Your task to perform on an android device: turn off airplane mode Image 0: 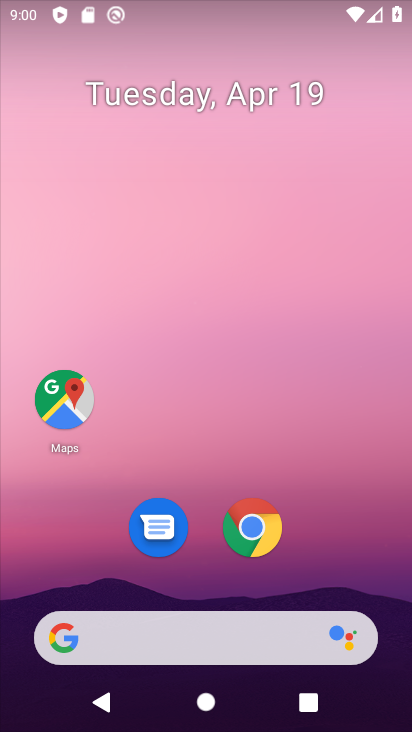
Step 0: drag from (251, 677) to (245, 154)
Your task to perform on an android device: turn off airplane mode Image 1: 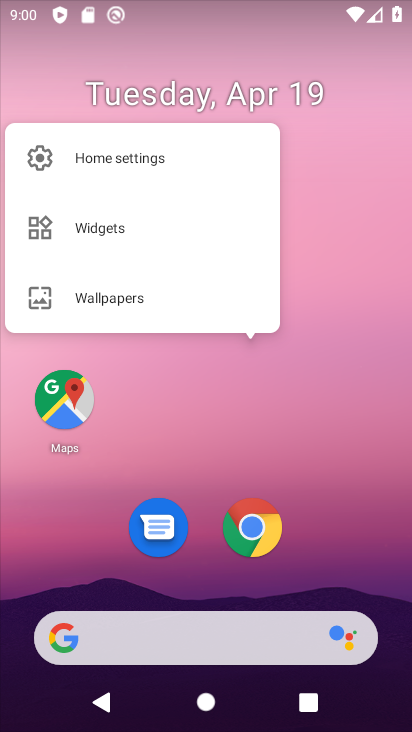
Step 1: click (310, 419)
Your task to perform on an android device: turn off airplane mode Image 2: 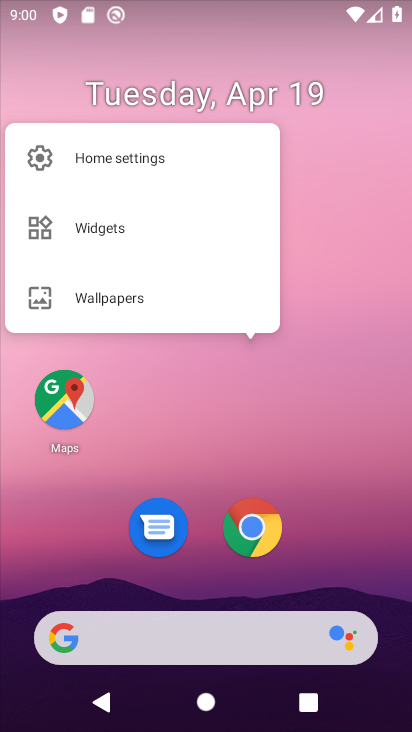
Step 2: click (310, 419)
Your task to perform on an android device: turn off airplane mode Image 3: 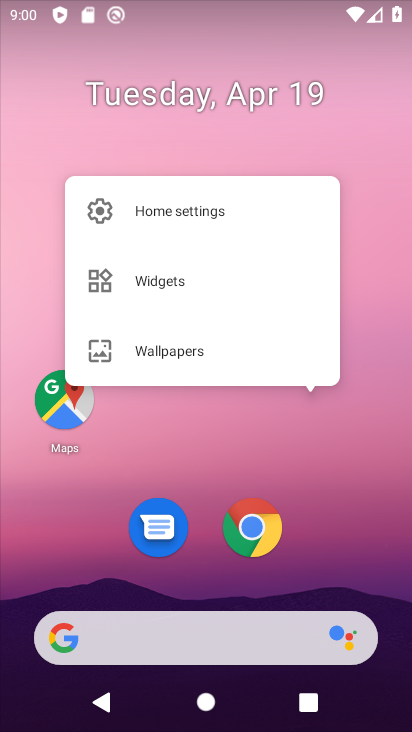
Step 3: drag from (249, 675) to (236, 75)
Your task to perform on an android device: turn off airplane mode Image 4: 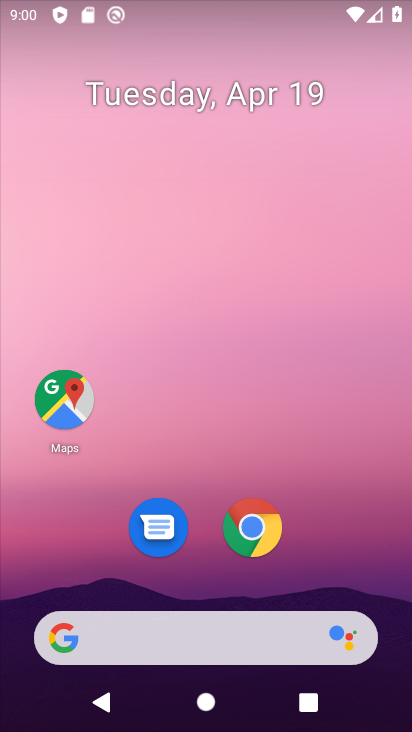
Step 4: drag from (237, 677) to (229, 100)
Your task to perform on an android device: turn off airplane mode Image 5: 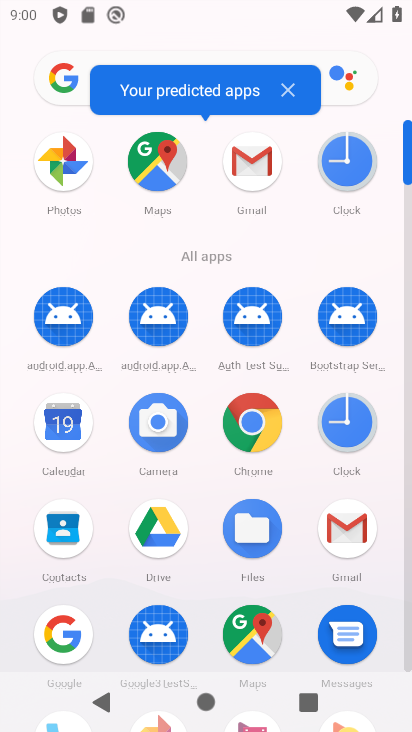
Step 5: drag from (210, 502) to (204, 315)
Your task to perform on an android device: turn off airplane mode Image 6: 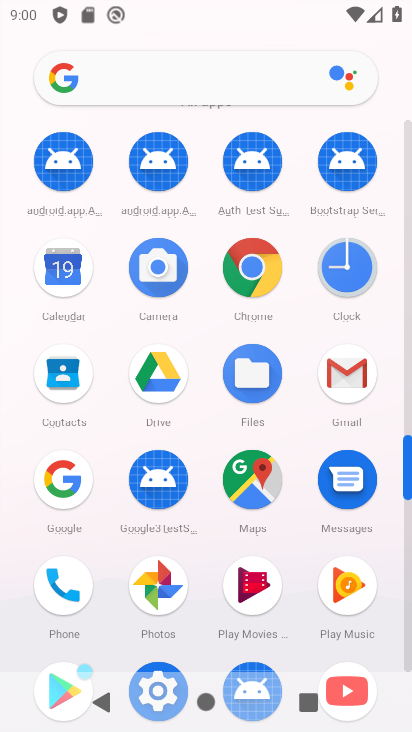
Step 6: click (158, 658)
Your task to perform on an android device: turn off airplane mode Image 7: 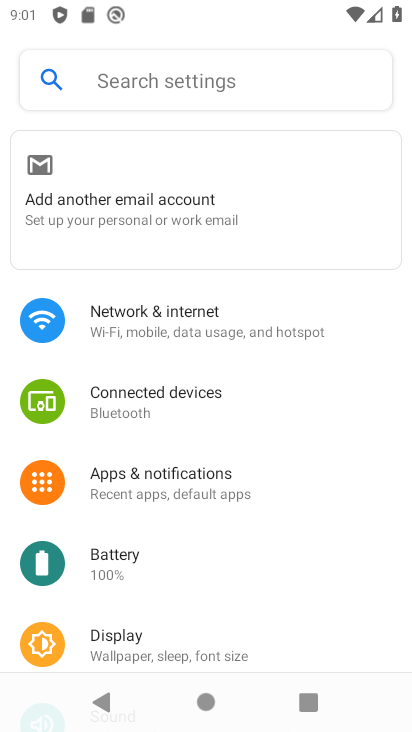
Step 7: click (151, 313)
Your task to perform on an android device: turn off airplane mode Image 8: 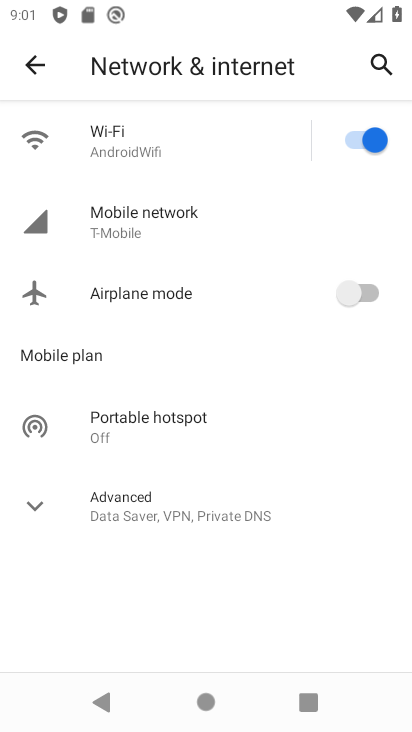
Step 8: click (155, 297)
Your task to perform on an android device: turn off airplane mode Image 9: 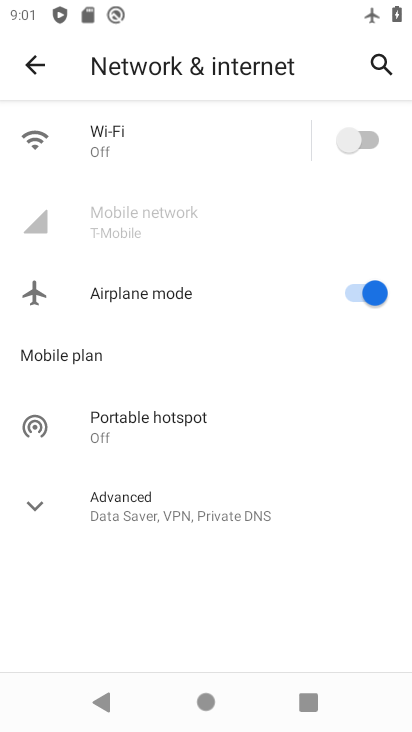
Step 9: click (155, 297)
Your task to perform on an android device: turn off airplane mode Image 10: 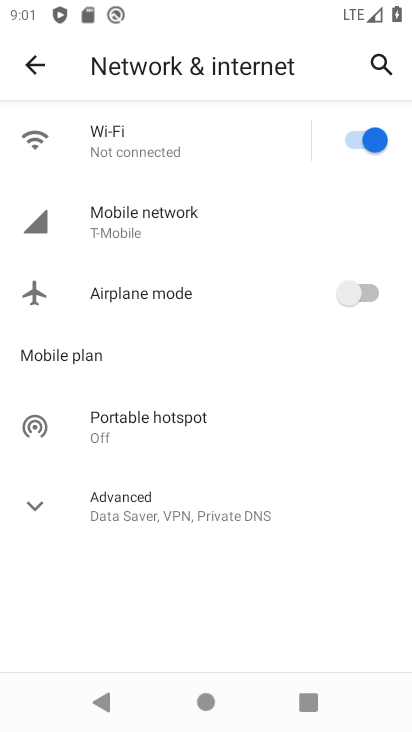
Step 10: task complete